Your task to perform on an android device: Go to Reddit.com Image 0: 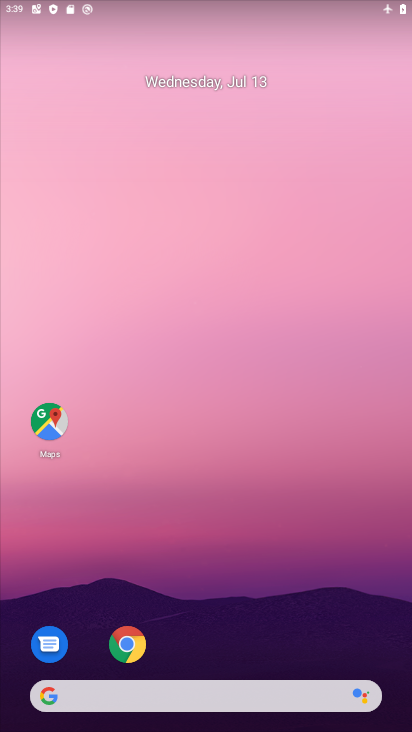
Step 0: click (121, 648)
Your task to perform on an android device: Go to Reddit.com Image 1: 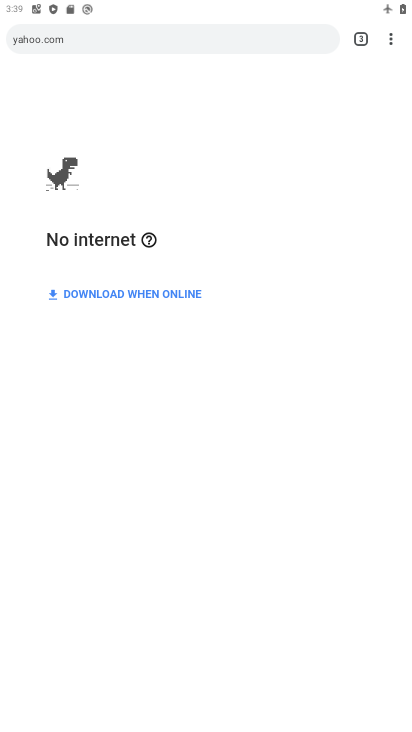
Step 1: click (205, 41)
Your task to perform on an android device: Go to Reddit.com Image 2: 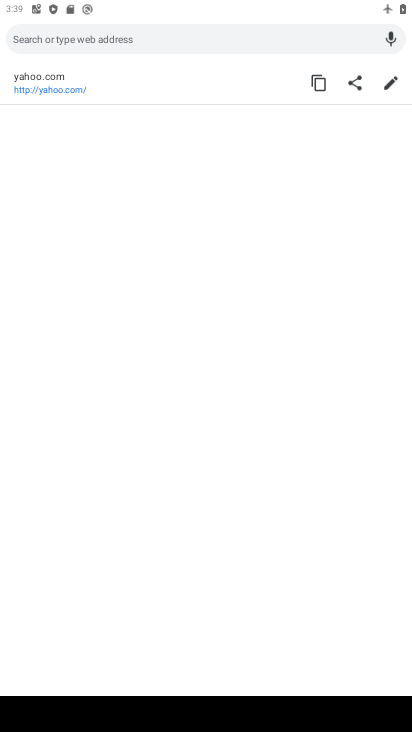
Step 2: type "reddit.com"
Your task to perform on an android device: Go to Reddit.com Image 3: 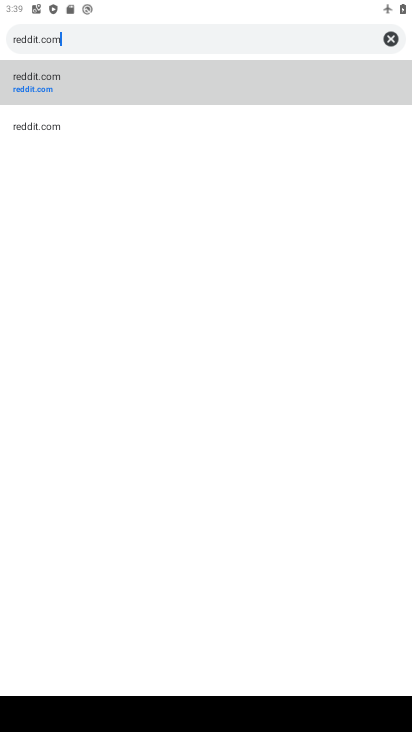
Step 3: click (44, 82)
Your task to perform on an android device: Go to Reddit.com Image 4: 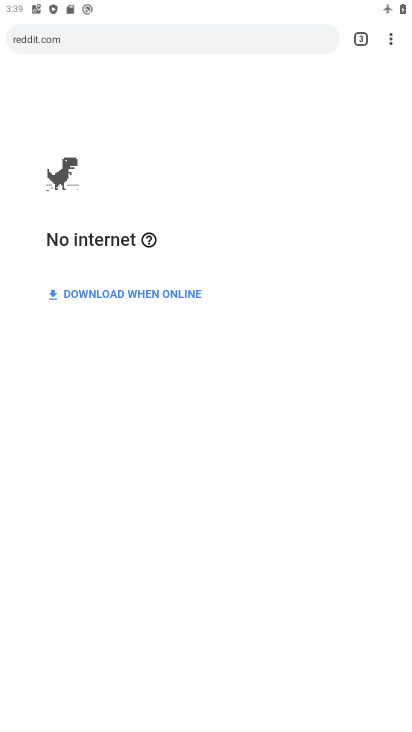
Step 4: task complete